Your task to perform on an android device: turn notification dots on Image 0: 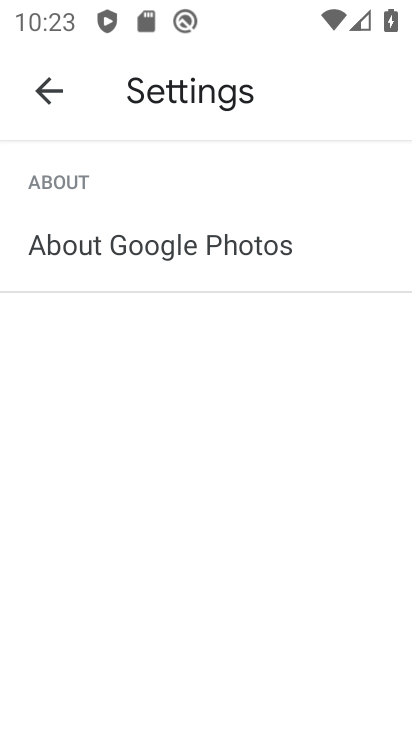
Step 0: press home button
Your task to perform on an android device: turn notification dots on Image 1: 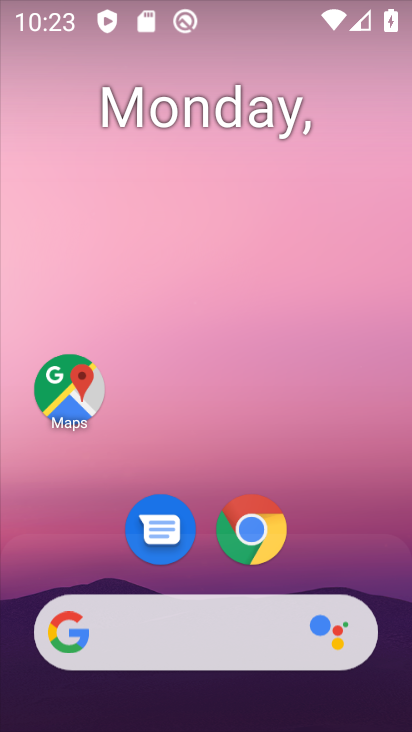
Step 1: drag from (222, 695) to (223, 56)
Your task to perform on an android device: turn notification dots on Image 2: 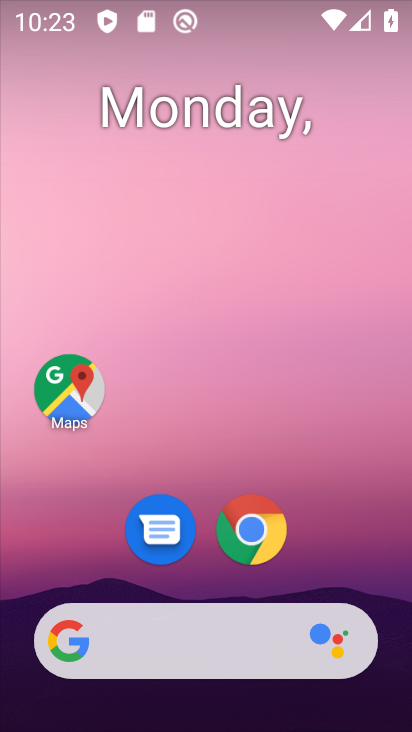
Step 2: drag from (201, 714) to (197, 188)
Your task to perform on an android device: turn notification dots on Image 3: 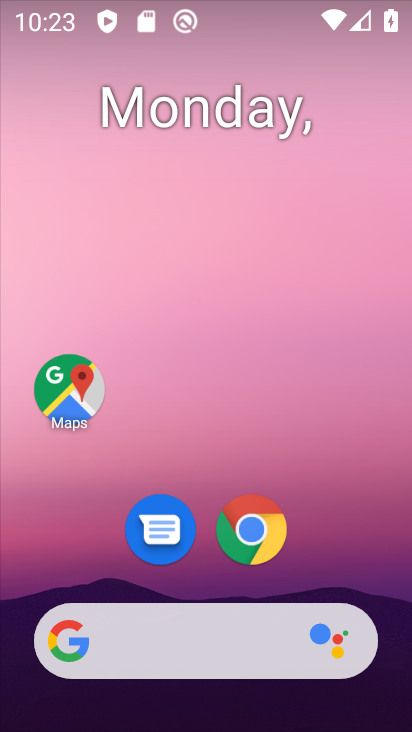
Step 3: drag from (241, 727) to (241, 3)
Your task to perform on an android device: turn notification dots on Image 4: 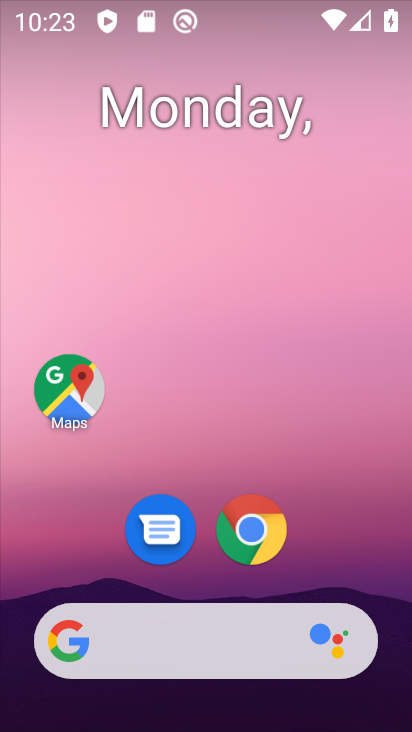
Step 4: drag from (236, 730) to (229, 642)
Your task to perform on an android device: turn notification dots on Image 5: 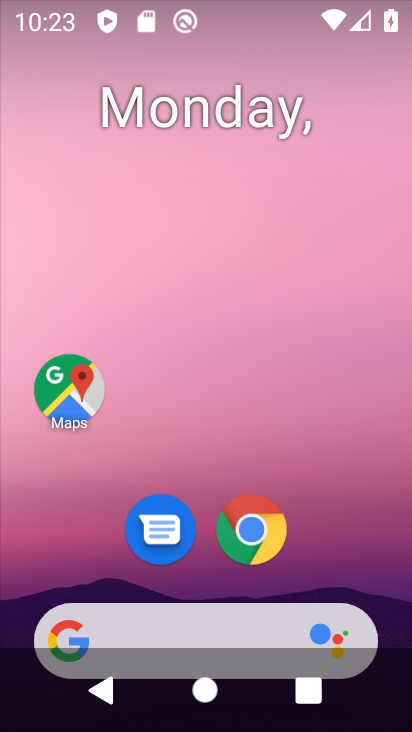
Step 5: click (229, 1)
Your task to perform on an android device: turn notification dots on Image 6: 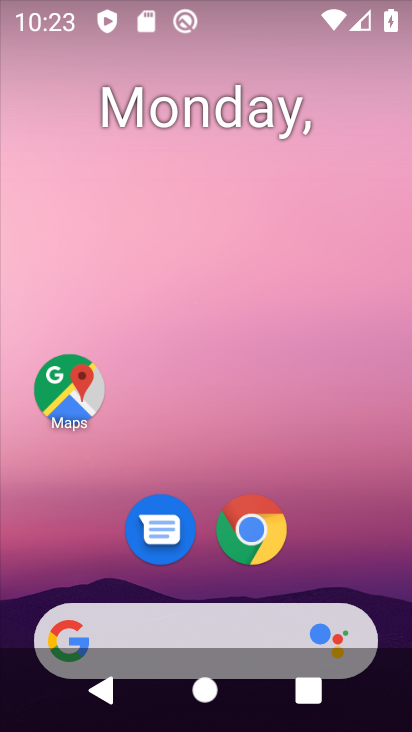
Step 6: drag from (244, 707) to (232, 602)
Your task to perform on an android device: turn notification dots on Image 7: 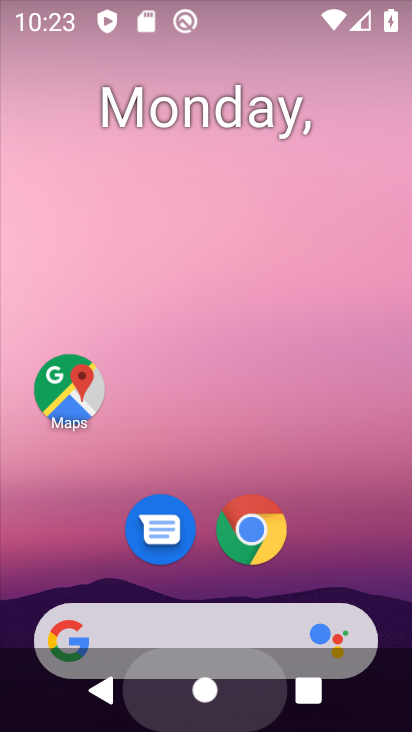
Step 7: click (232, 74)
Your task to perform on an android device: turn notification dots on Image 8: 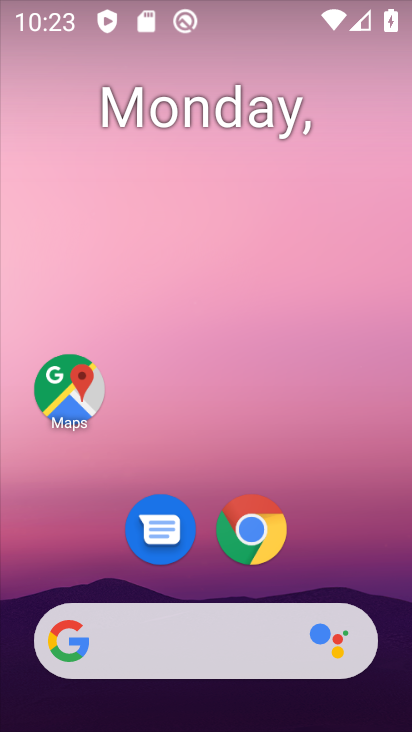
Step 8: drag from (281, 722) to (272, 3)
Your task to perform on an android device: turn notification dots on Image 9: 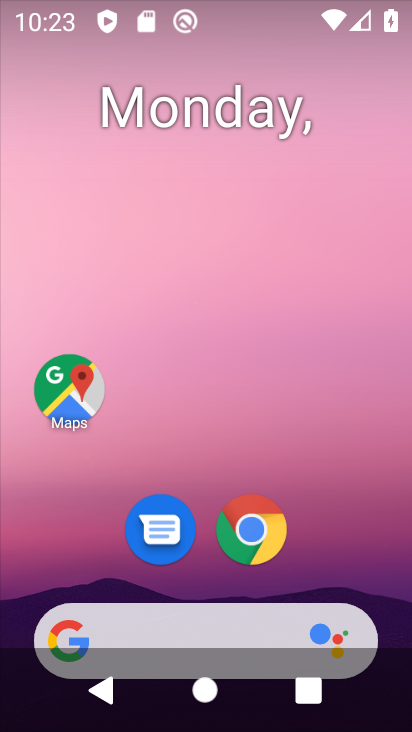
Step 9: drag from (385, 730) to (345, 2)
Your task to perform on an android device: turn notification dots on Image 10: 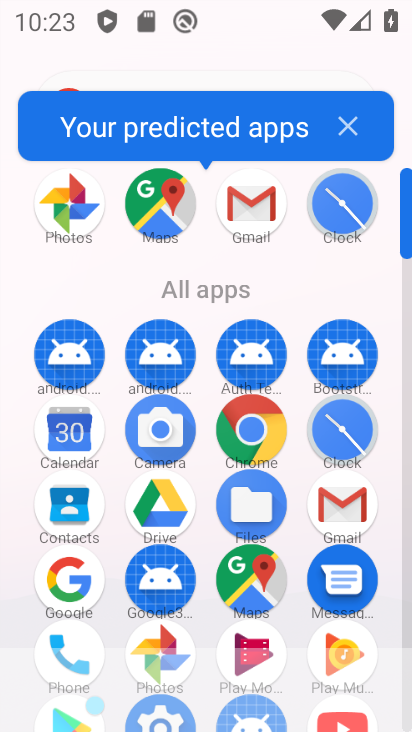
Step 10: drag from (207, 579) to (229, 126)
Your task to perform on an android device: turn notification dots on Image 11: 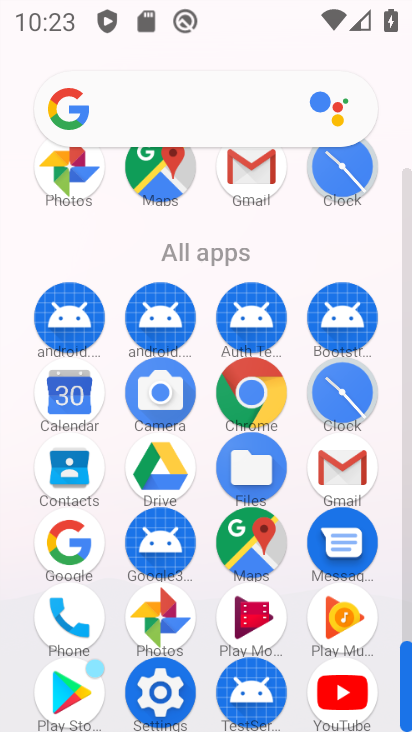
Step 11: click (165, 691)
Your task to perform on an android device: turn notification dots on Image 12: 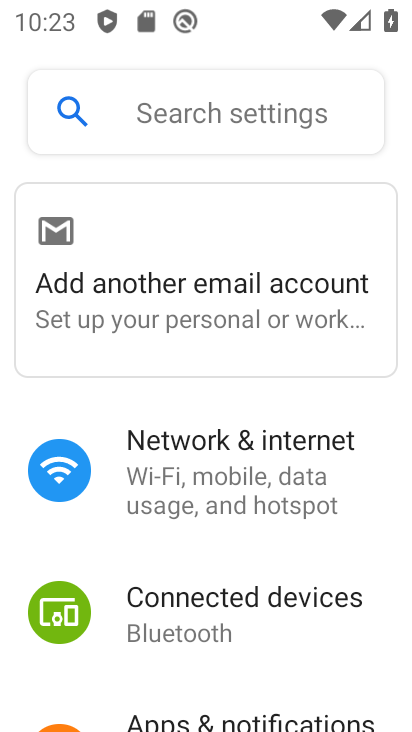
Step 12: drag from (223, 689) to (232, 276)
Your task to perform on an android device: turn notification dots on Image 13: 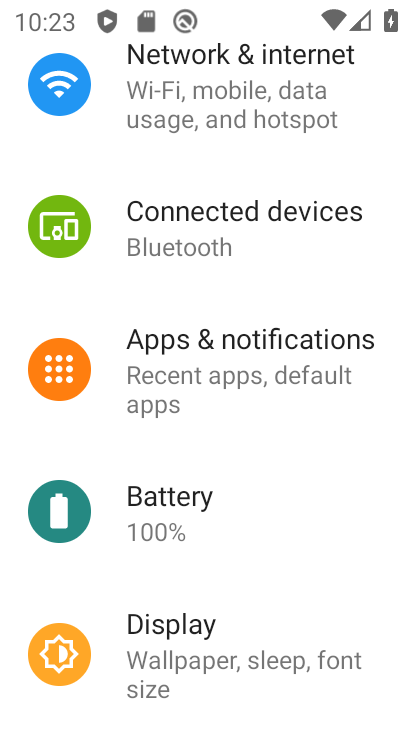
Step 13: click (209, 360)
Your task to perform on an android device: turn notification dots on Image 14: 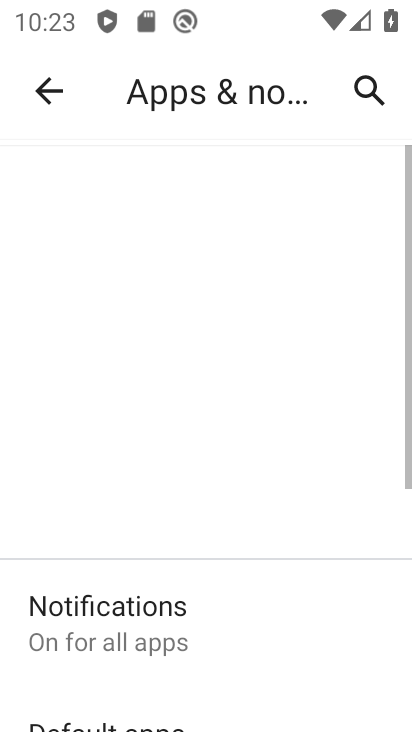
Step 14: click (103, 630)
Your task to perform on an android device: turn notification dots on Image 15: 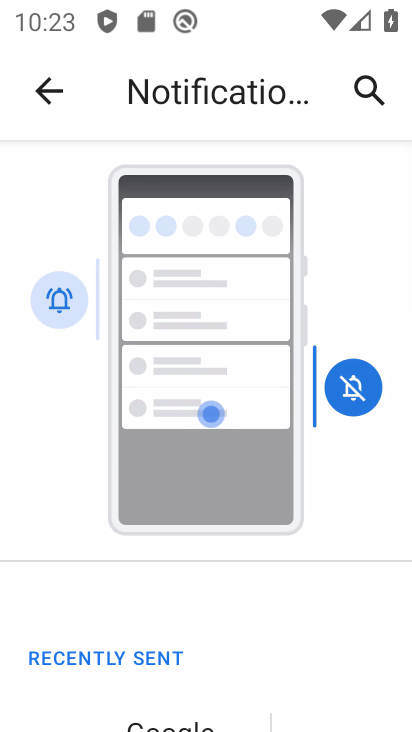
Step 15: drag from (234, 710) to (227, 360)
Your task to perform on an android device: turn notification dots on Image 16: 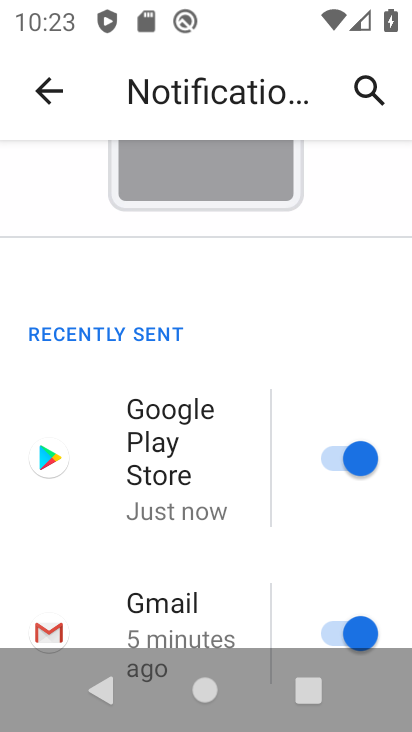
Step 16: drag from (236, 619) to (241, 222)
Your task to perform on an android device: turn notification dots on Image 17: 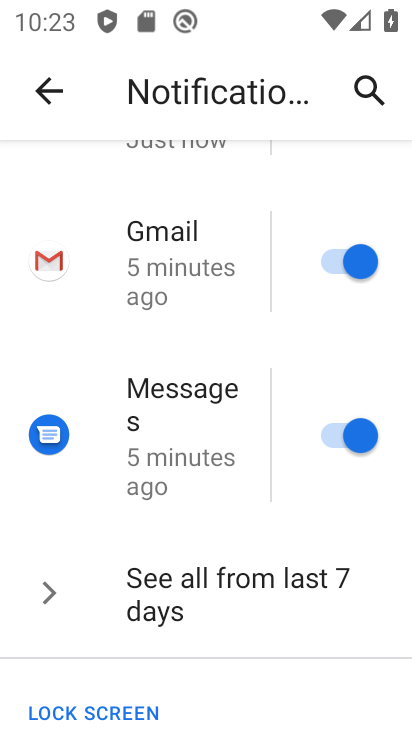
Step 17: drag from (214, 699) to (220, 425)
Your task to perform on an android device: turn notification dots on Image 18: 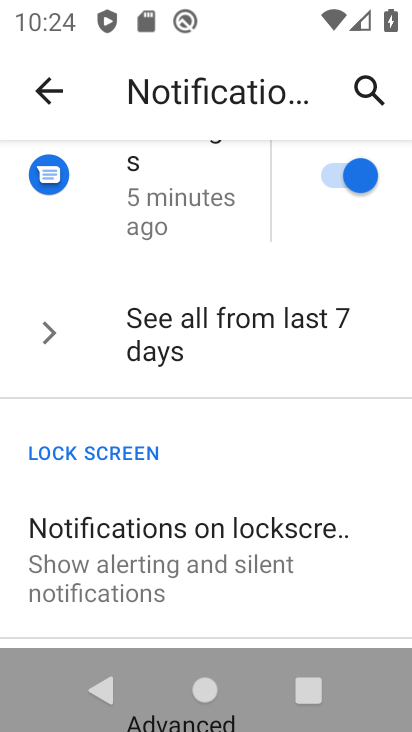
Step 18: drag from (221, 633) to (242, 388)
Your task to perform on an android device: turn notification dots on Image 19: 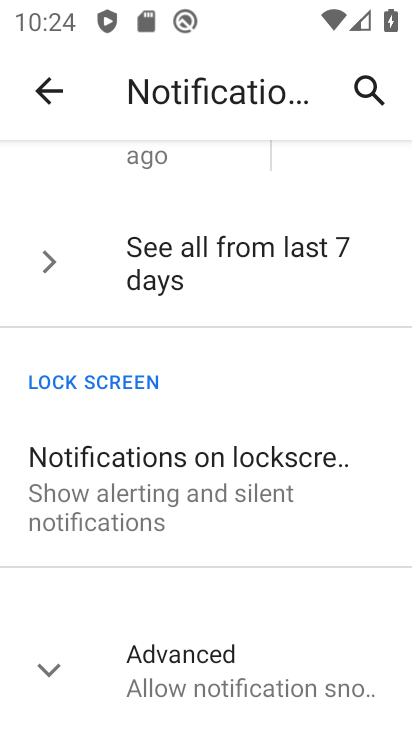
Step 19: click (220, 703)
Your task to perform on an android device: turn notification dots on Image 20: 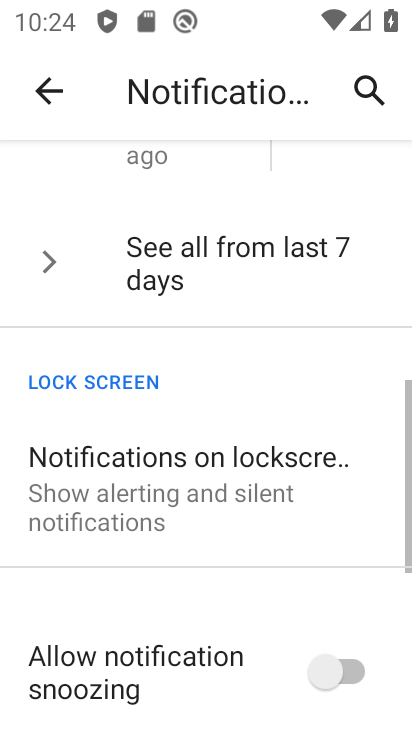
Step 20: task complete